Your task to perform on an android device: Open Google Chrome Image 0: 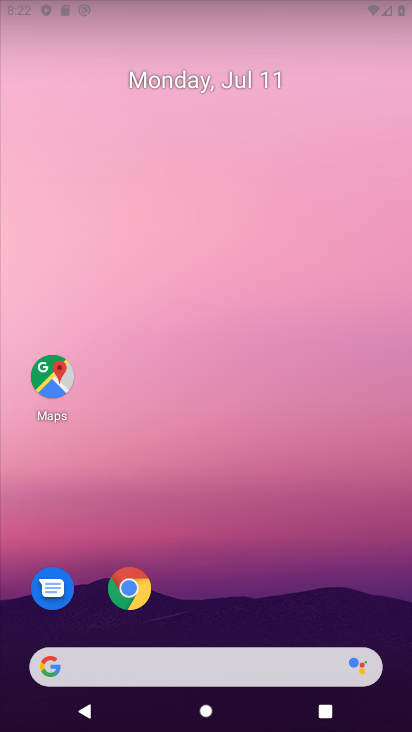
Step 0: click (126, 593)
Your task to perform on an android device: Open Google Chrome Image 1: 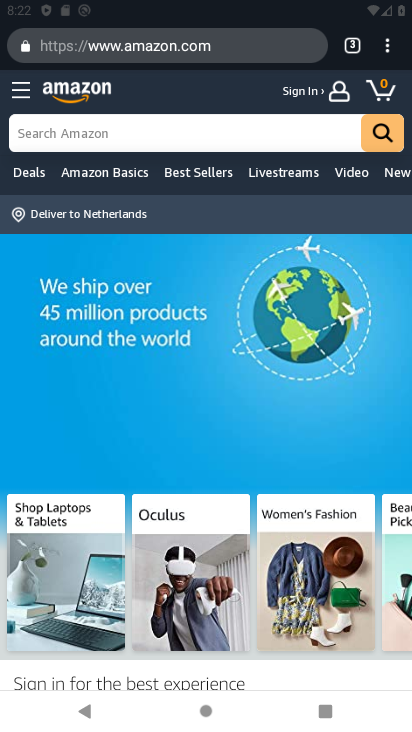
Step 1: task complete